Your task to perform on an android device: toggle airplane mode Image 0: 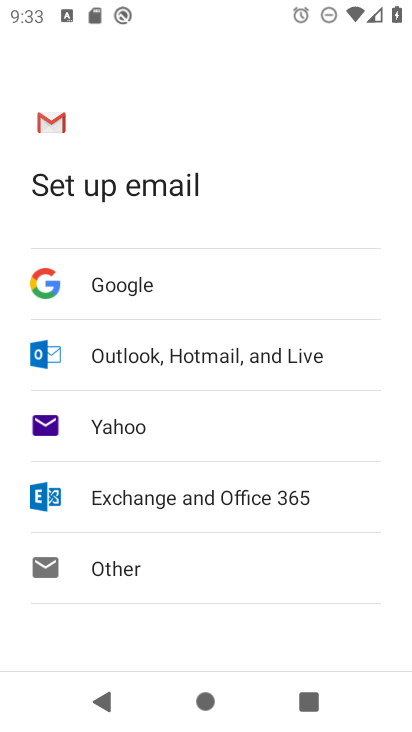
Step 0: press home button
Your task to perform on an android device: toggle airplane mode Image 1: 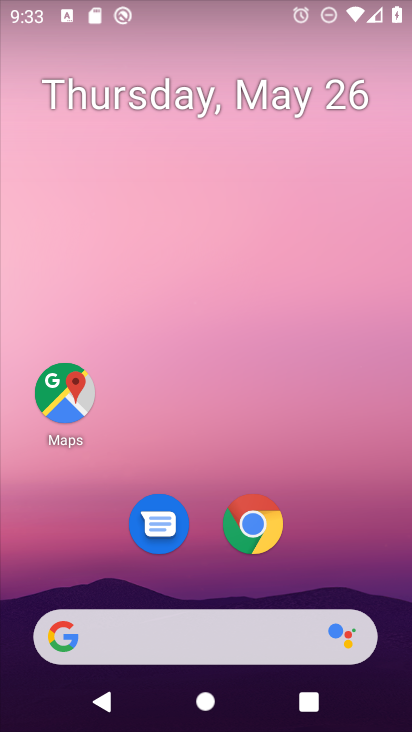
Step 1: drag from (238, 457) to (240, 4)
Your task to perform on an android device: toggle airplane mode Image 2: 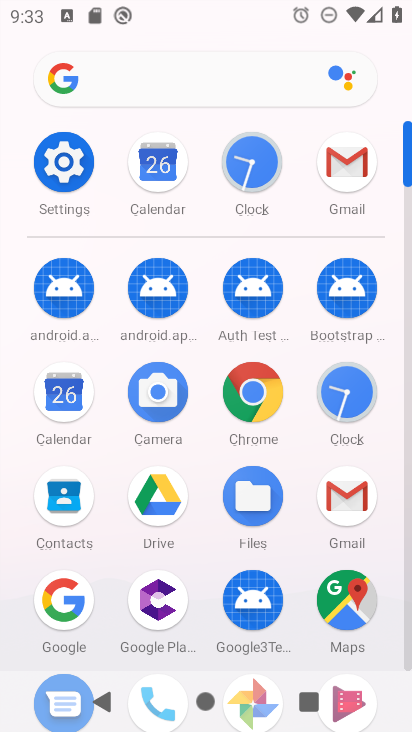
Step 2: click (74, 157)
Your task to perform on an android device: toggle airplane mode Image 3: 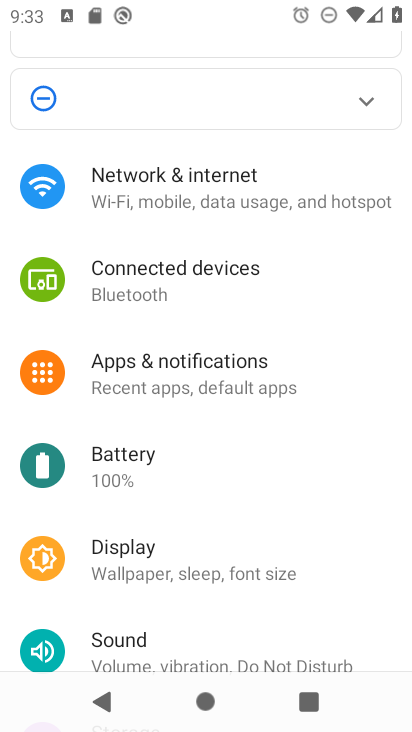
Step 3: click (271, 186)
Your task to perform on an android device: toggle airplane mode Image 4: 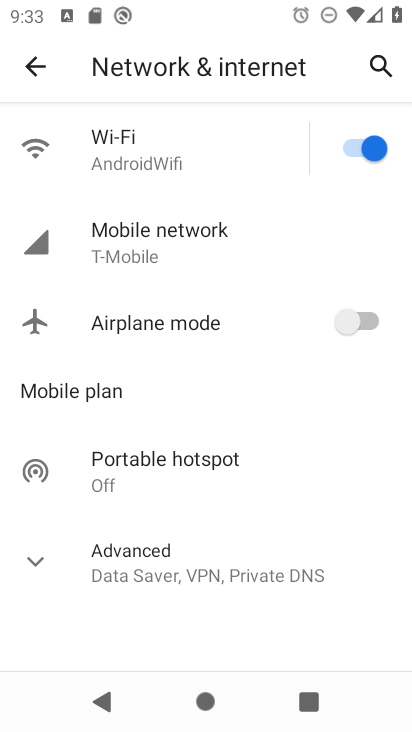
Step 4: click (350, 315)
Your task to perform on an android device: toggle airplane mode Image 5: 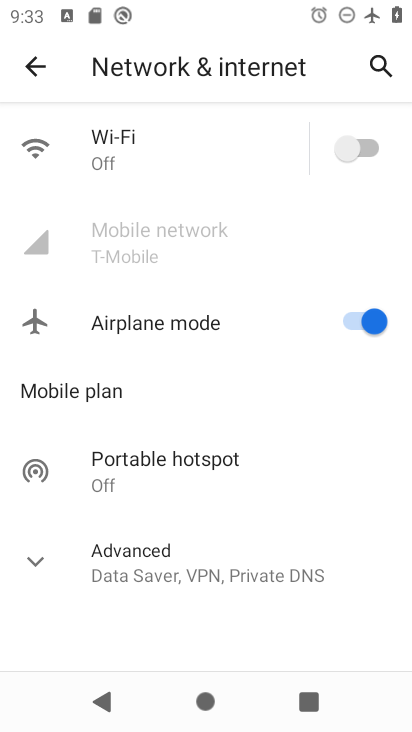
Step 5: task complete